Your task to perform on an android device: turn on translation in the chrome app Image 0: 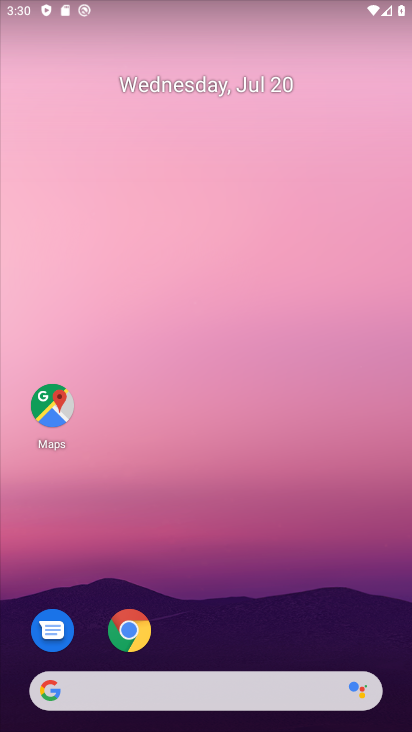
Step 0: drag from (254, 652) to (273, 12)
Your task to perform on an android device: turn on translation in the chrome app Image 1: 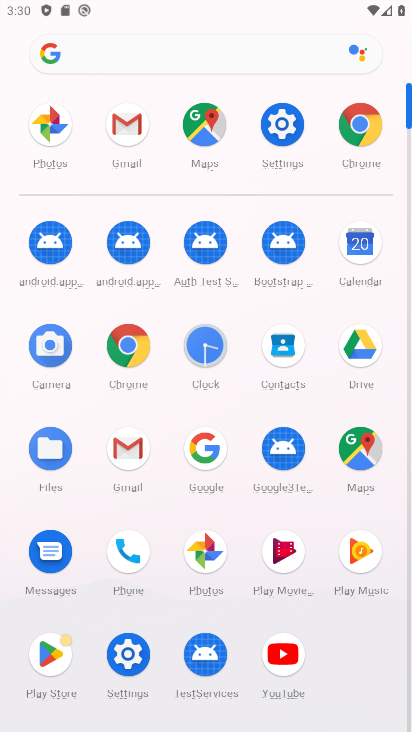
Step 1: click (355, 124)
Your task to perform on an android device: turn on translation in the chrome app Image 2: 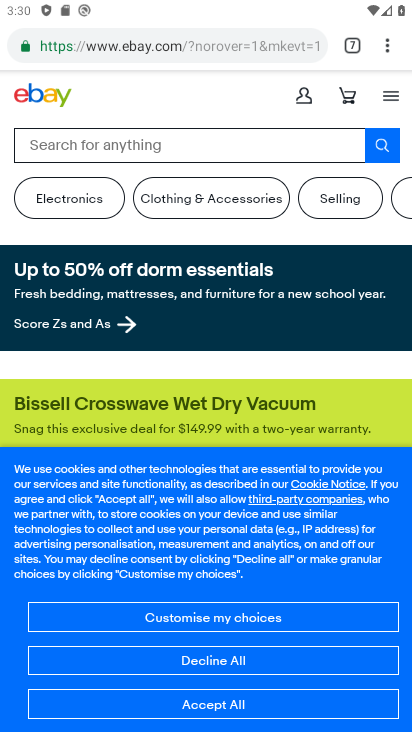
Step 2: drag from (388, 47) to (235, 554)
Your task to perform on an android device: turn on translation in the chrome app Image 3: 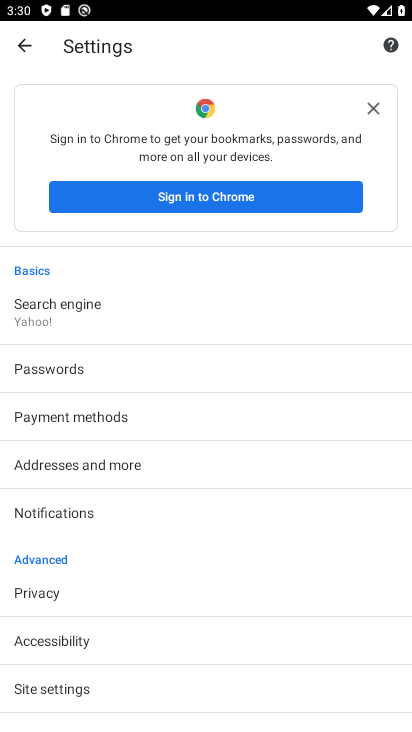
Step 3: drag from (173, 644) to (265, 219)
Your task to perform on an android device: turn on translation in the chrome app Image 4: 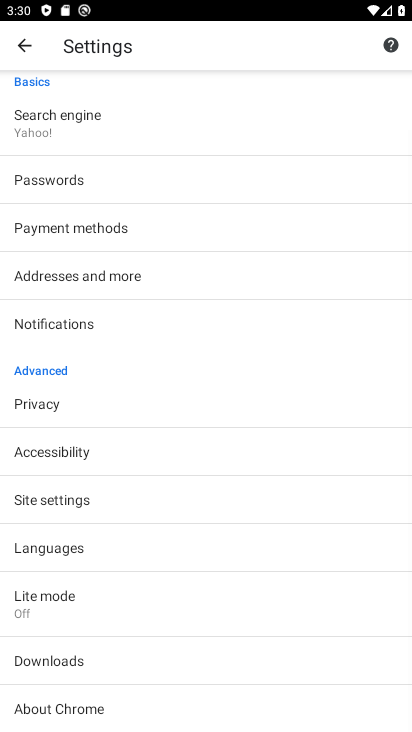
Step 4: click (59, 540)
Your task to perform on an android device: turn on translation in the chrome app Image 5: 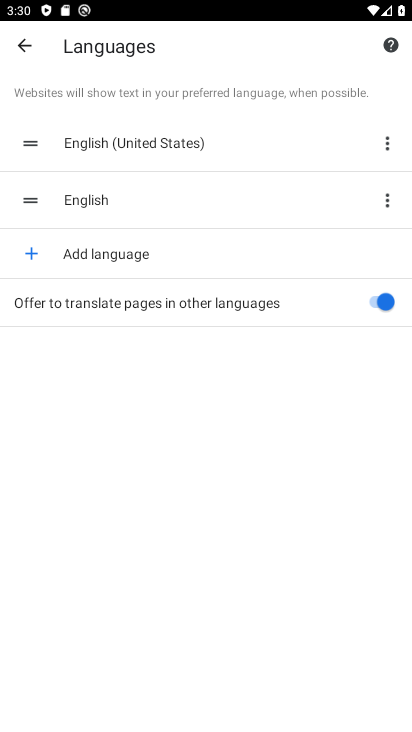
Step 5: task complete